Your task to perform on an android device: Open settings Image 0: 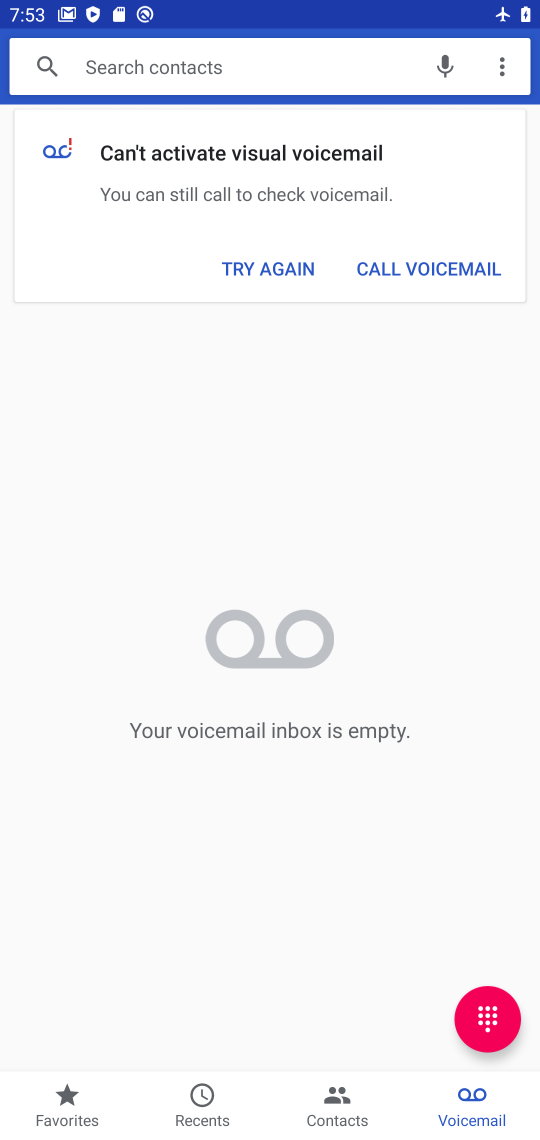
Step 0: press home button
Your task to perform on an android device: Open settings Image 1: 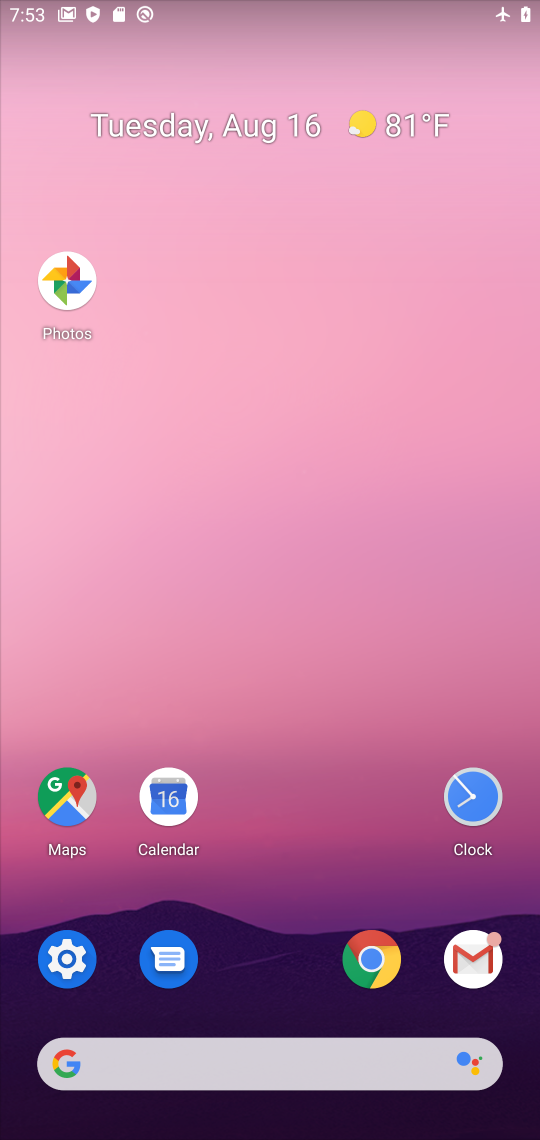
Step 1: click (63, 953)
Your task to perform on an android device: Open settings Image 2: 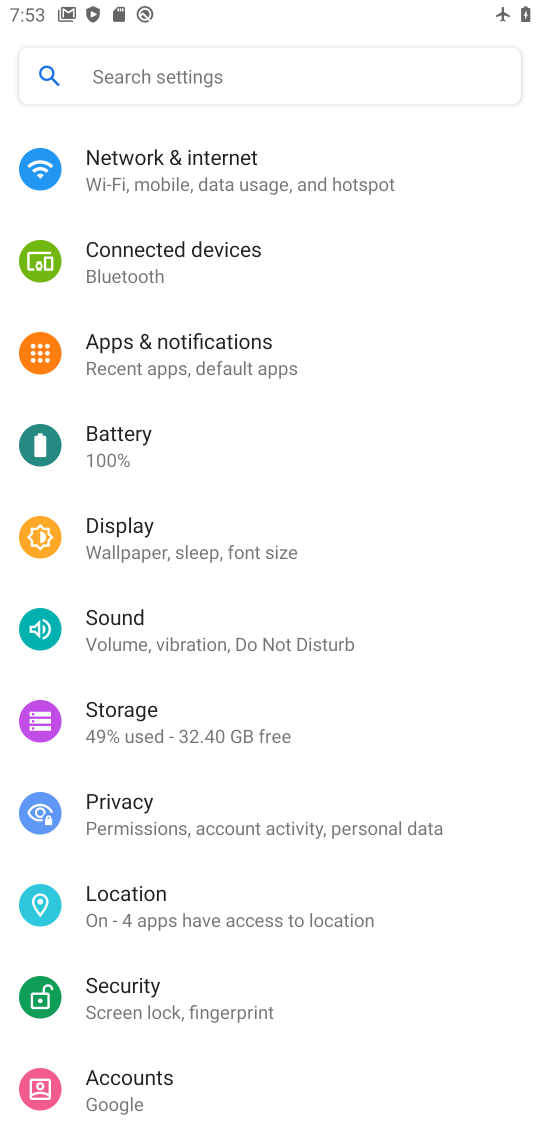
Step 2: task complete